Your task to perform on an android device: Open wifi settings Image 0: 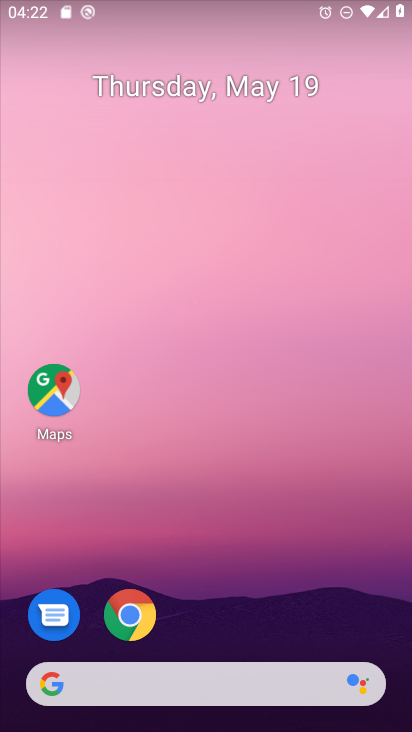
Step 0: drag from (197, 588) to (260, 37)
Your task to perform on an android device: Open wifi settings Image 1: 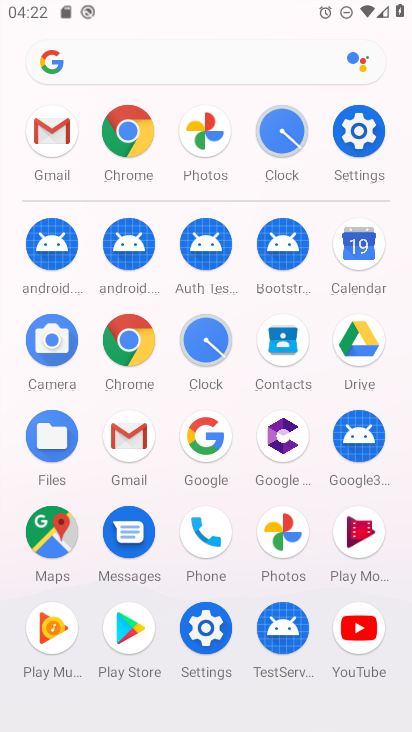
Step 1: click (377, 124)
Your task to perform on an android device: Open wifi settings Image 2: 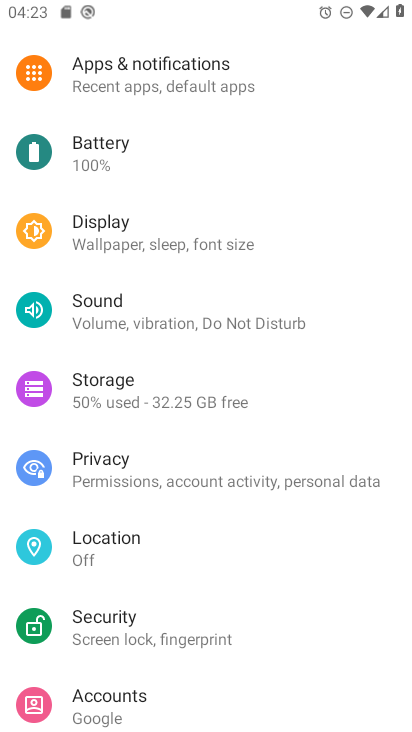
Step 2: drag from (236, 109) to (231, 542)
Your task to perform on an android device: Open wifi settings Image 3: 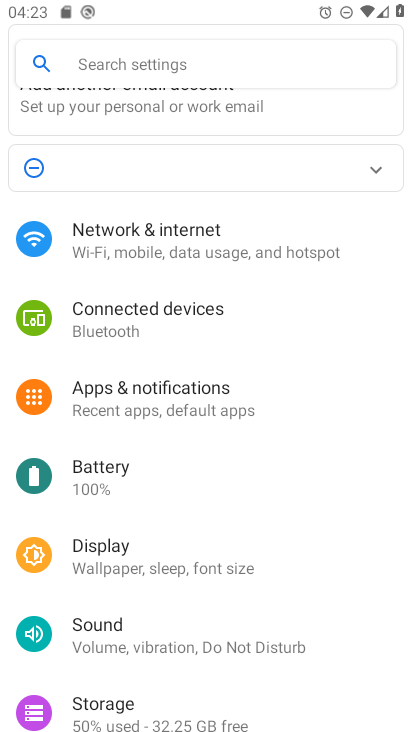
Step 3: click (195, 262)
Your task to perform on an android device: Open wifi settings Image 4: 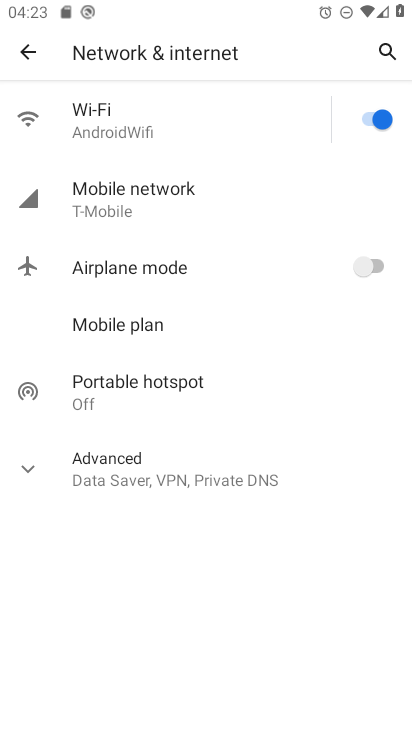
Step 4: click (179, 127)
Your task to perform on an android device: Open wifi settings Image 5: 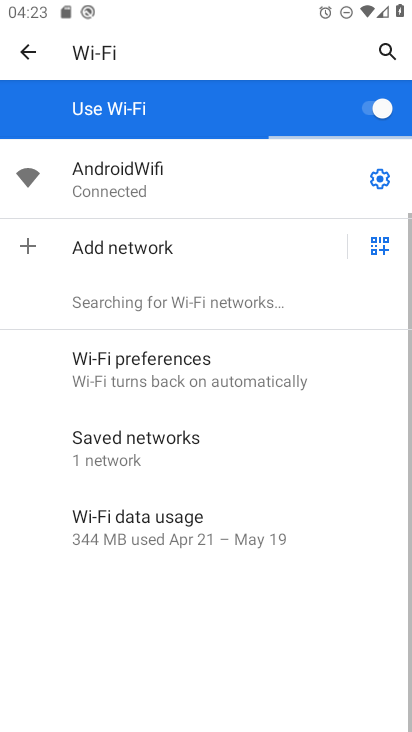
Step 5: task complete